Your task to perform on an android device: Go to location settings Image 0: 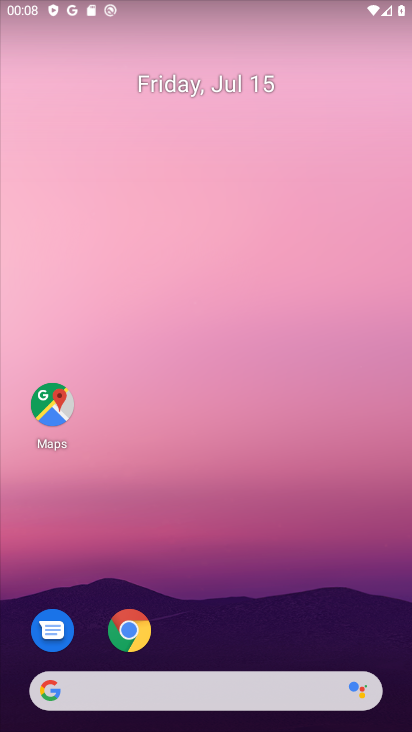
Step 0: drag from (262, 432) to (262, 55)
Your task to perform on an android device: Go to location settings Image 1: 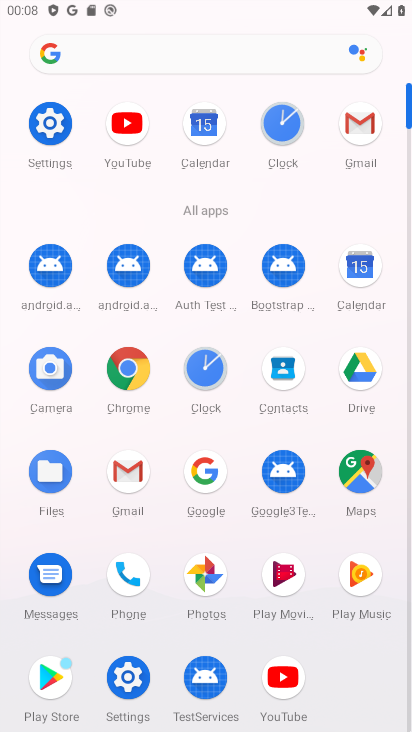
Step 1: click (128, 697)
Your task to perform on an android device: Go to location settings Image 2: 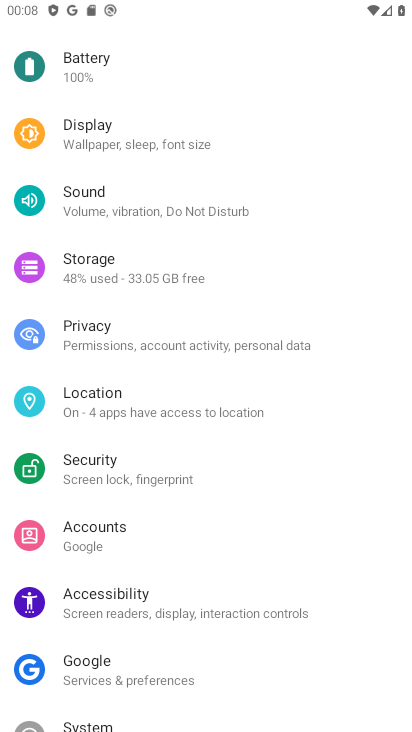
Step 2: click (109, 390)
Your task to perform on an android device: Go to location settings Image 3: 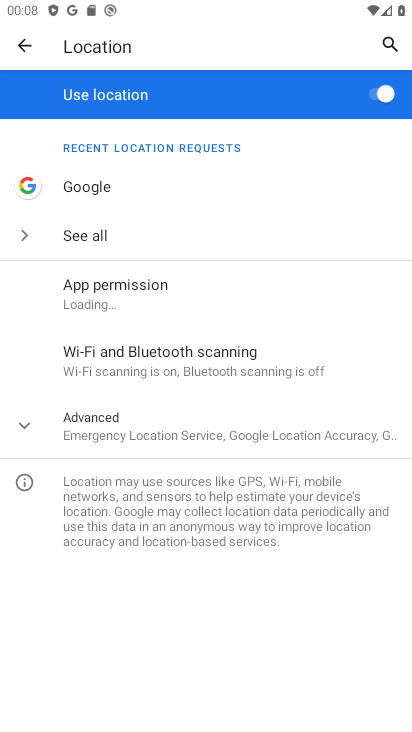
Step 3: task complete